Your task to perform on an android device: open chrome privacy settings Image 0: 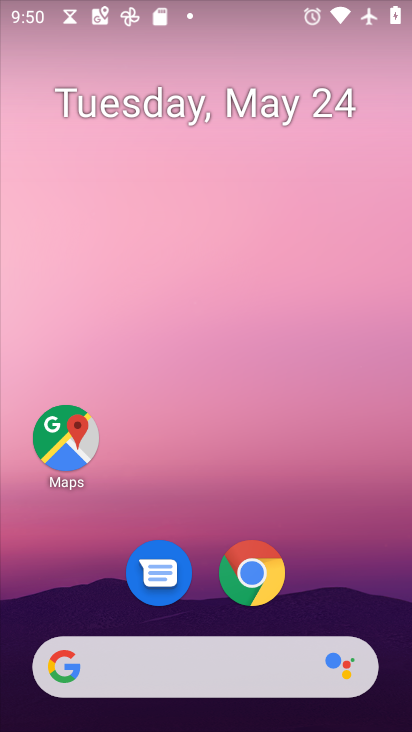
Step 0: drag from (350, 586) to (345, 3)
Your task to perform on an android device: open chrome privacy settings Image 1: 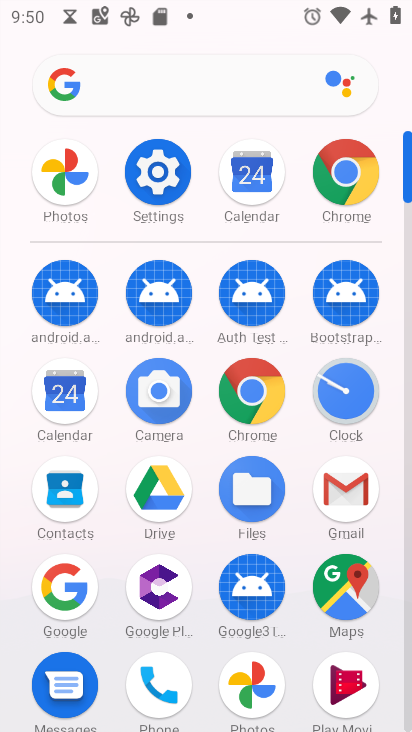
Step 1: click (169, 206)
Your task to perform on an android device: open chrome privacy settings Image 2: 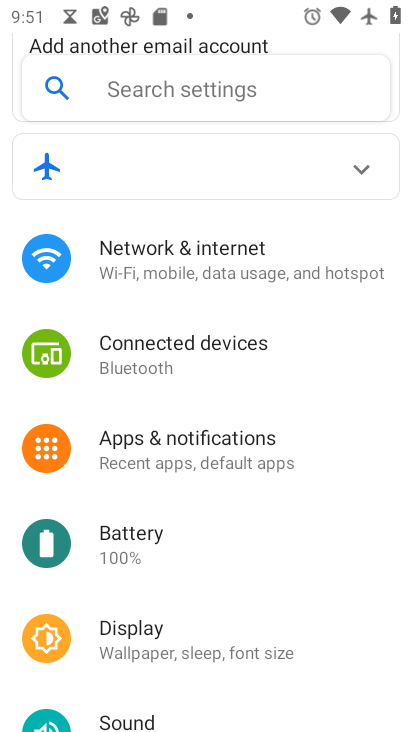
Step 2: drag from (206, 627) to (223, 210)
Your task to perform on an android device: open chrome privacy settings Image 3: 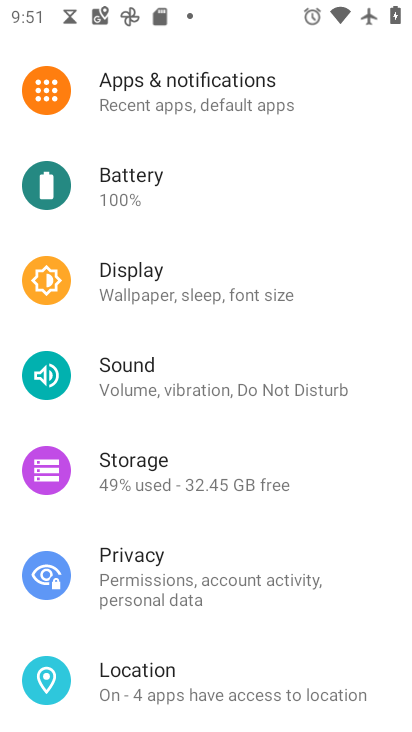
Step 3: click (154, 571)
Your task to perform on an android device: open chrome privacy settings Image 4: 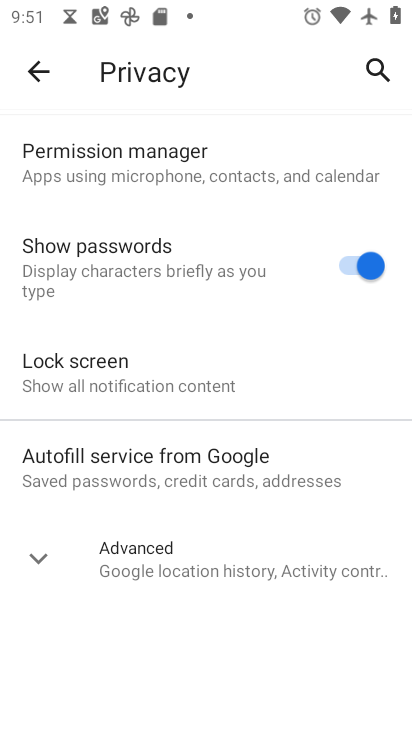
Step 4: task complete